Your task to perform on an android device: delete a single message in the gmail app Image 0: 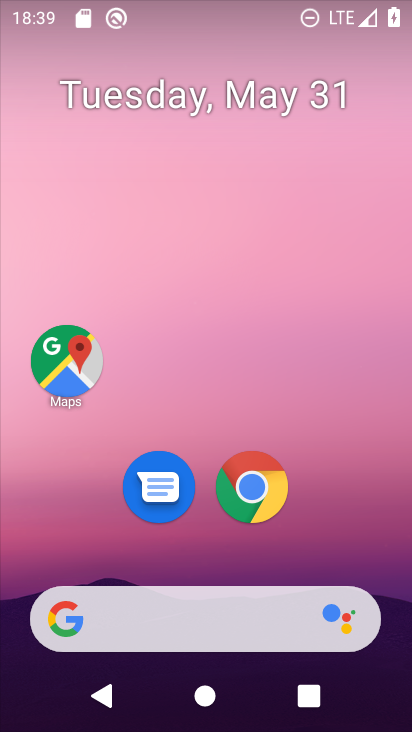
Step 0: drag from (320, 530) to (241, 46)
Your task to perform on an android device: delete a single message in the gmail app Image 1: 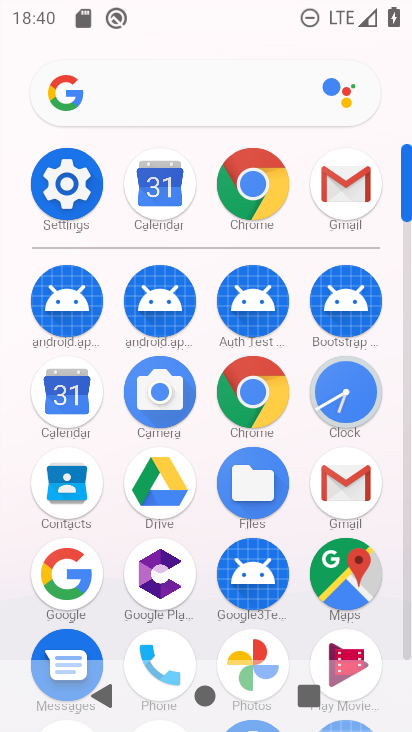
Step 1: click (338, 184)
Your task to perform on an android device: delete a single message in the gmail app Image 2: 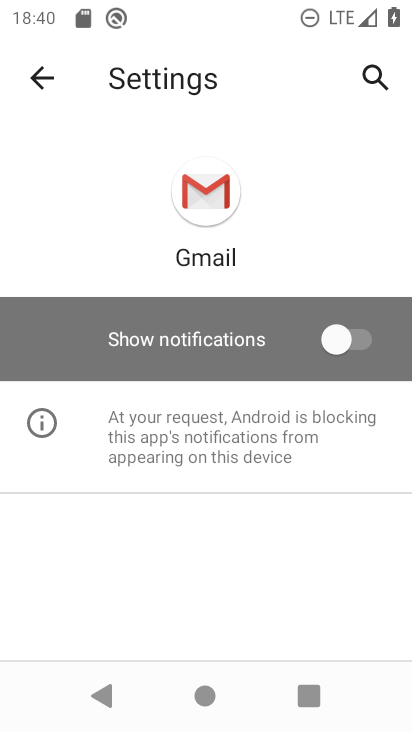
Step 2: click (41, 68)
Your task to perform on an android device: delete a single message in the gmail app Image 3: 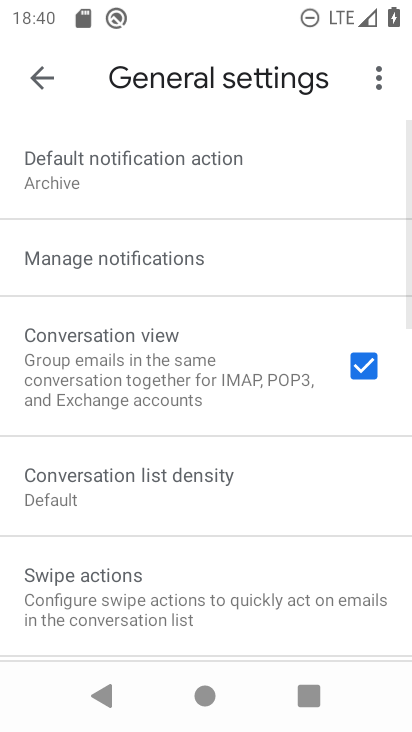
Step 3: click (36, 74)
Your task to perform on an android device: delete a single message in the gmail app Image 4: 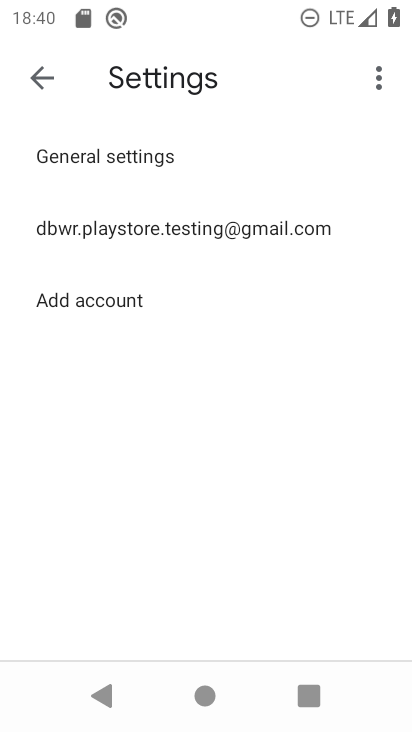
Step 4: click (38, 75)
Your task to perform on an android device: delete a single message in the gmail app Image 5: 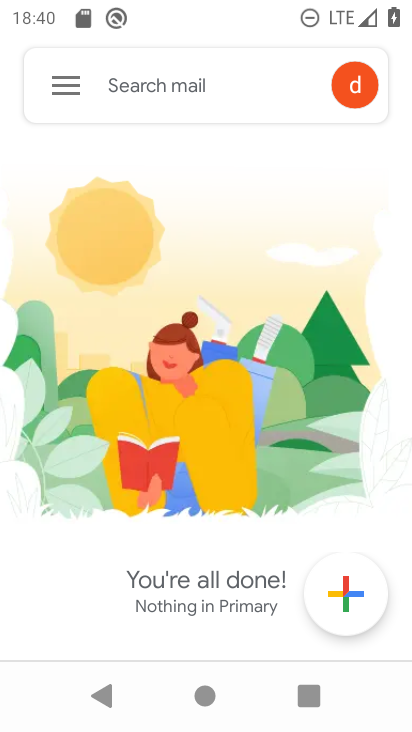
Step 5: click (64, 94)
Your task to perform on an android device: delete a single message in the gmail app Image 6: 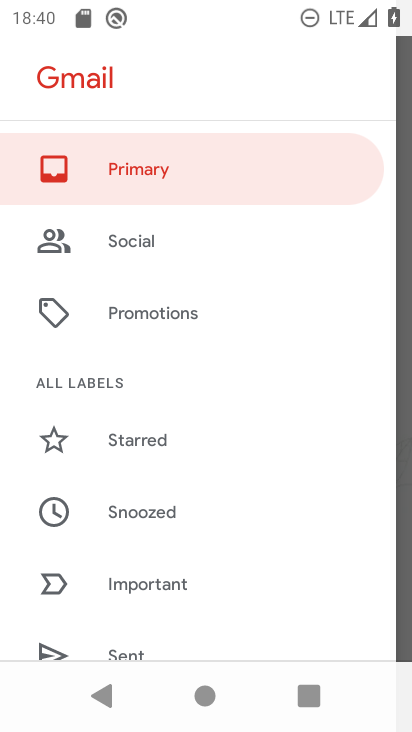
Step 6: click (189, 159)
Your task to perform on an android device: delete a single message in the gmail app Image 7: 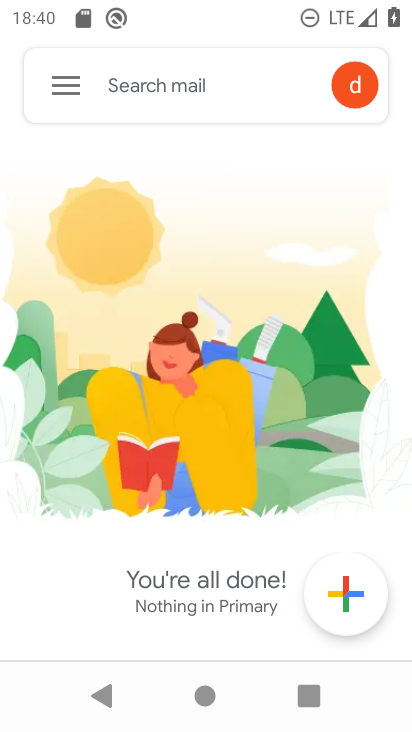
Step 7: click (57, 82)
Your task to perform on an android device: delete a single message in the gmail app Image 8: 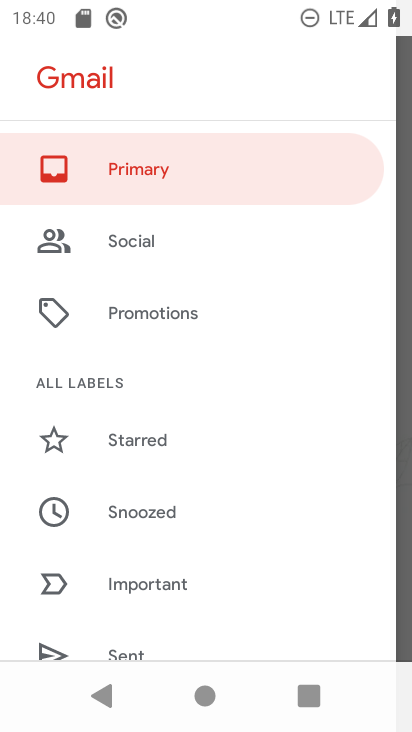
Step 8: drag from (224, 455) to (211, 128)
Your task to perform on an android device: delete a single message in the gmail app Image 9: 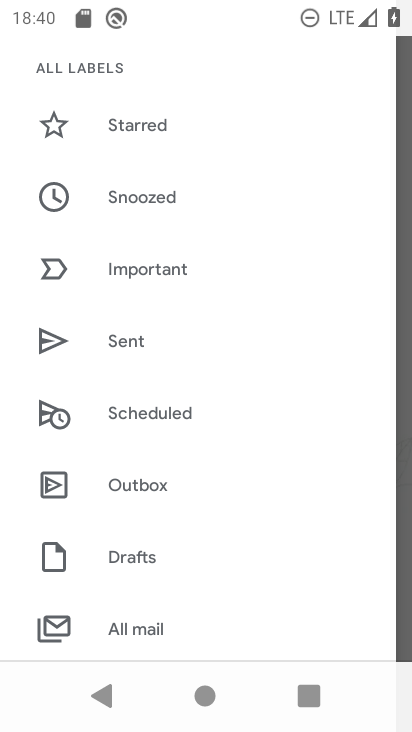
Step 9: drag from (216, 590) to (216, 248)
Your task to perform on an android device: delete a single message in the gmail app Image 10: 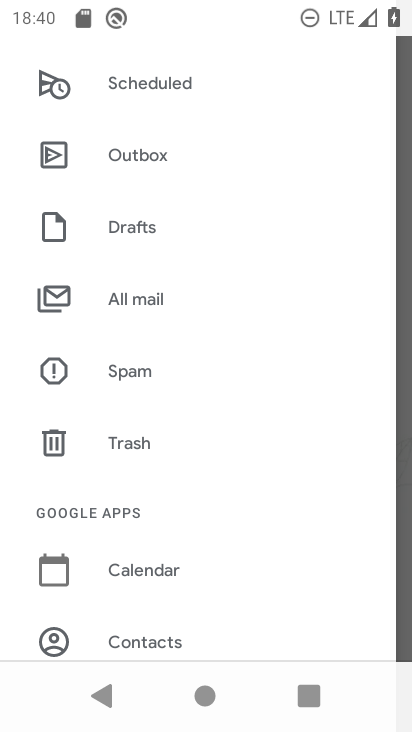
Step 10: drag from (290, 258) to (288, 583)
Your task to perform on an android device: delete a single message in the gmail app Image 11: 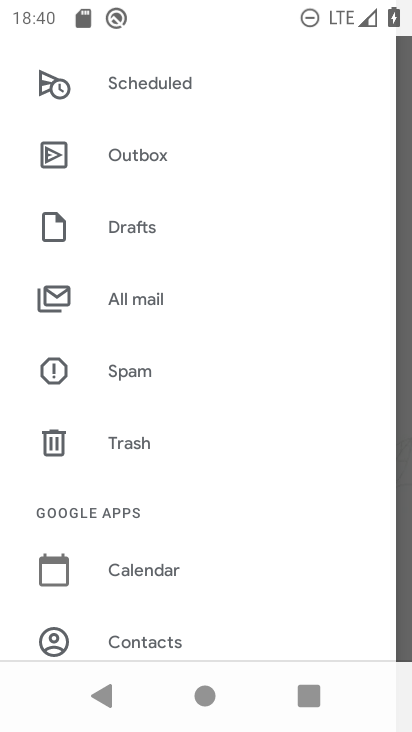
Step 11: drag from (240, 245) to (239, 570)
Your task to perform on an android device: delete a single message in the gmail app Image 12: 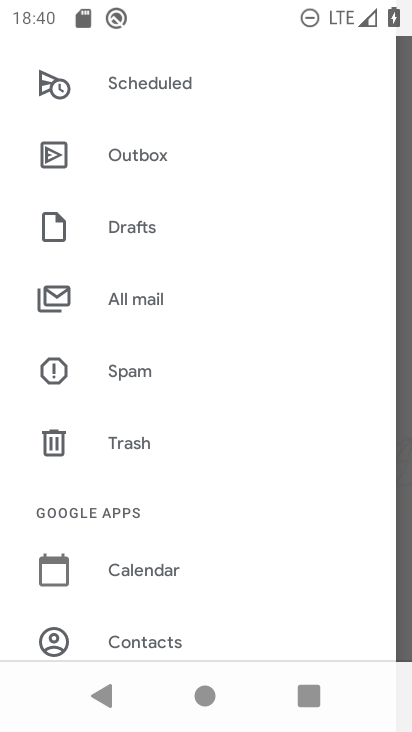
Step 12: drag from (202, 147) to (191, 569)
Your task to perform on an android device: delete a single message in the gmail app Image 13: 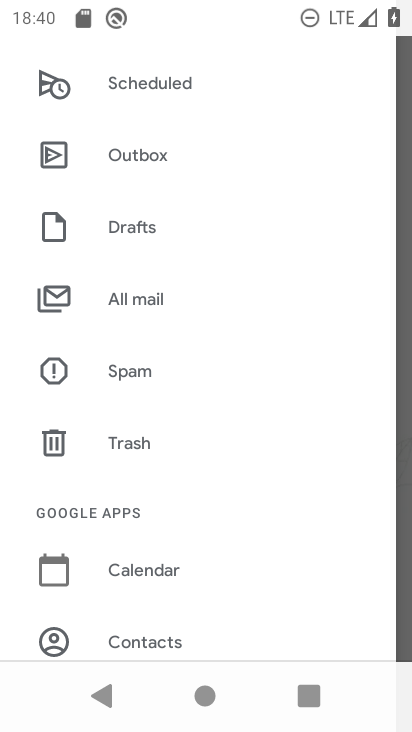
Step 13: drag from (240, 172) to (290, 522)
Your task to perform on an android device: delete a single message in the gmail app Image 14: 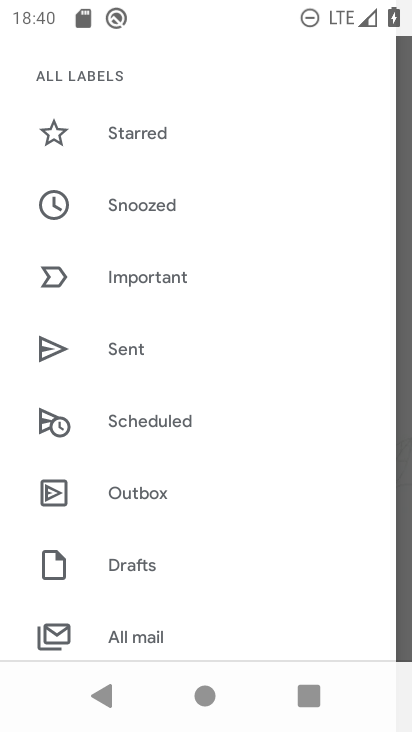
Step 14: click (124, 632)
Your task to perform on an android device: delete a single message in the gmail app Image 15: 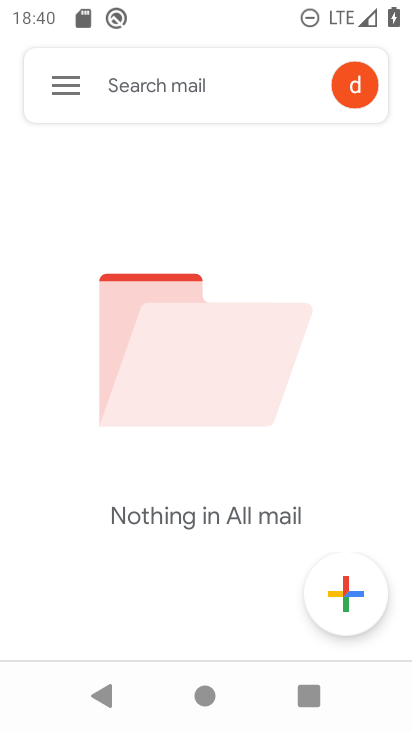
Step 15: task complete